Your task to perform on an android device: Open Yahoo.com Image 0: 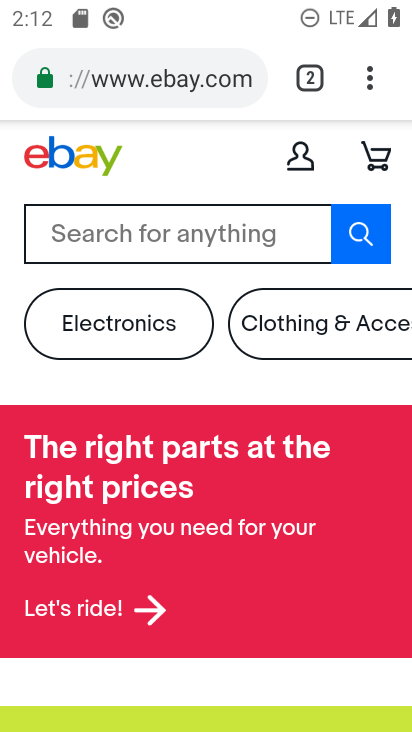
Step 0: press home button
Your task to perform on an android device: Open Yahoo.com Image 1: 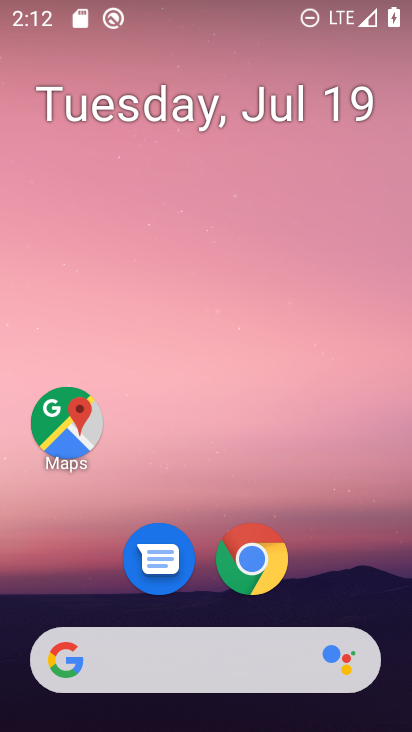
Step 1: drag from (216, 611) to (0, 194)
Your task to perform on an android device: Open Yahoo.com Image 2: 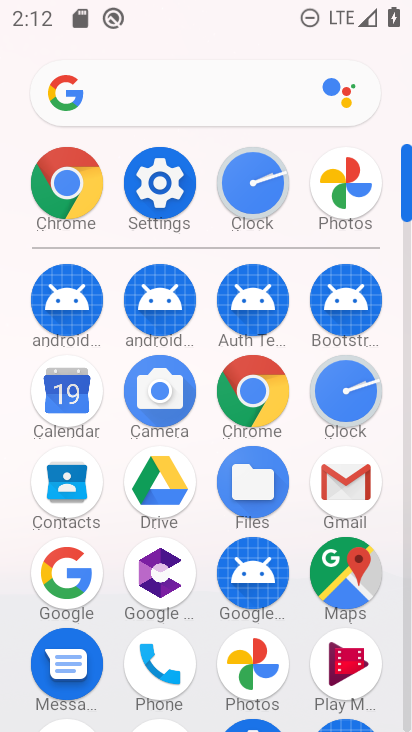
Step 2: click (84, 202)
Your task to perform on an android device: Open Yahoo.com Image 3: 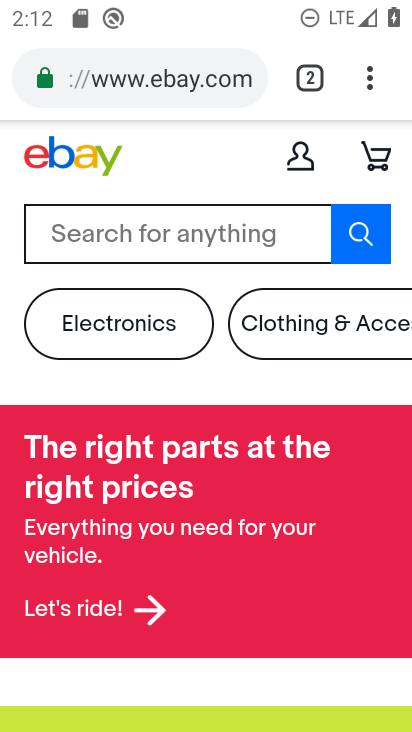
Step 3: click (204, 87)
Your task to perform on an android device: Open Yahoo.com Image 4: 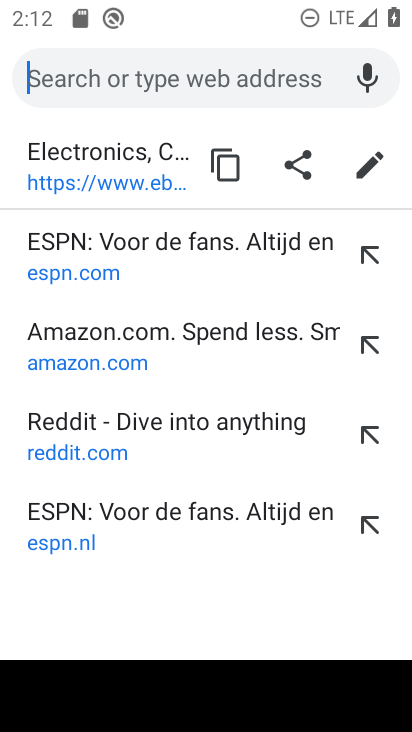
Step 4: type "yahoo"
Your task to perform on an android device: Open Yahoo.com Image 5: 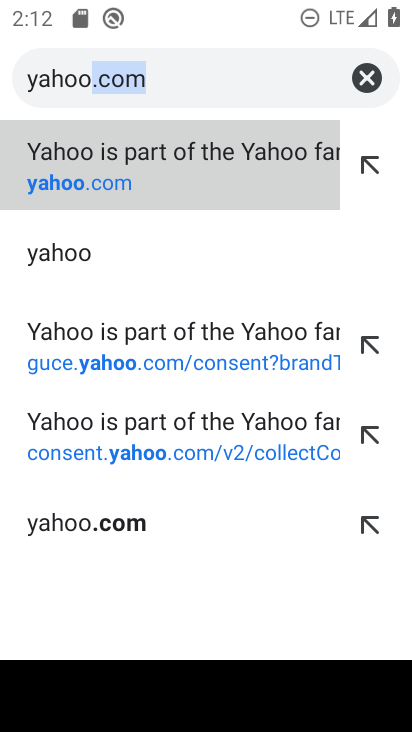
Step 5: click (127, 182)
Your task to perform on an android device: Open Yahoo.com Image 6: 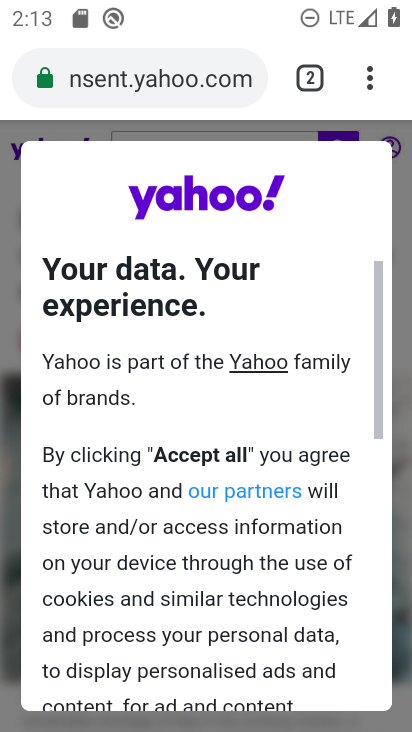
Step 6: task complete